Your task to perform on an android device: turn on showing notifications on the lock screen Image 0: 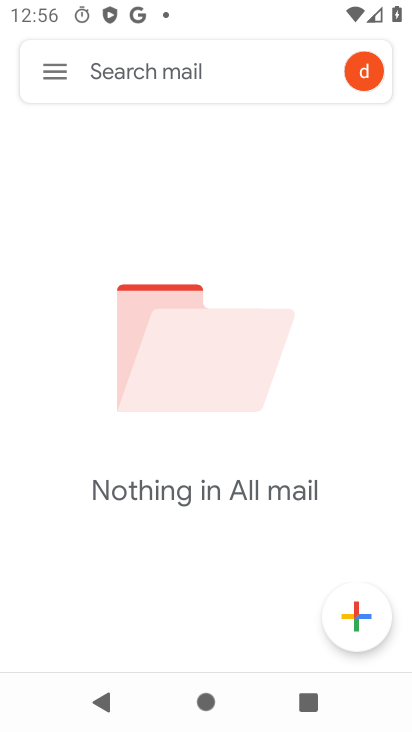
Step 0: press home button
Your task to perform on an android device: turn on showing notifications on the lock screen Image 1: 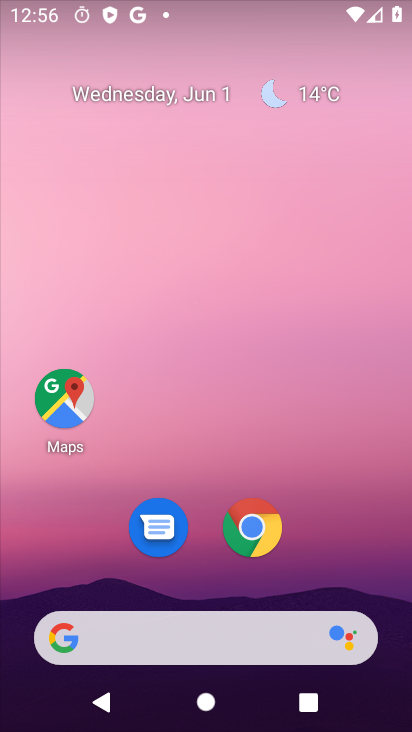
Step 1: drag from (196, 624) to (286, 207)
Your task to perform on an android device: turn on showing notifications on the lock screen Image 2: 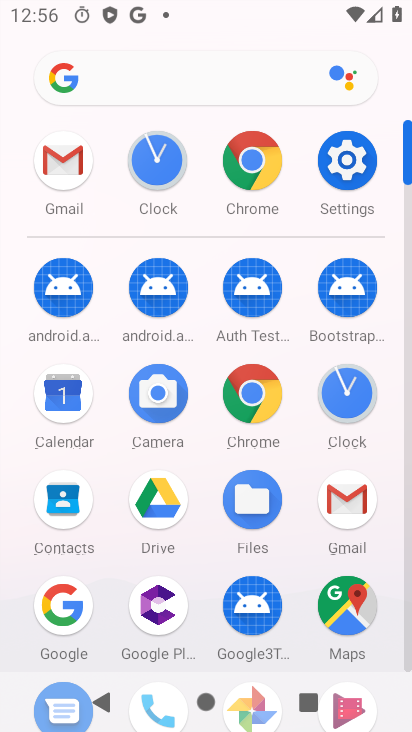
Step 2: click (359, 168)
Your task to perform on an android device: turn on showing notifications on the lock screen Image 3: 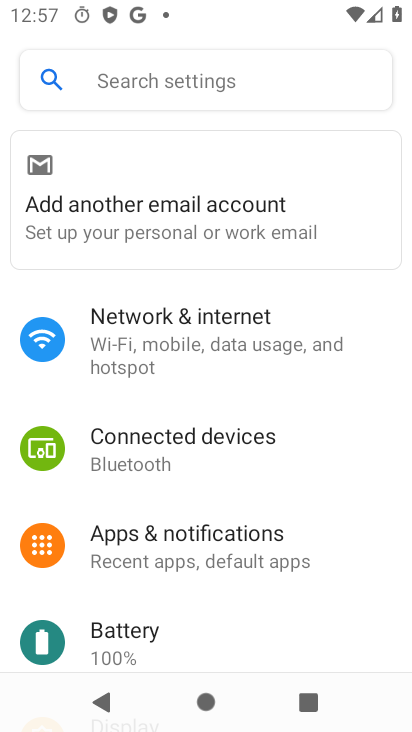
Step 3: click (214, 534)
Your task to perform on an android device: turn on showing notifications on the lock screen Image 4: 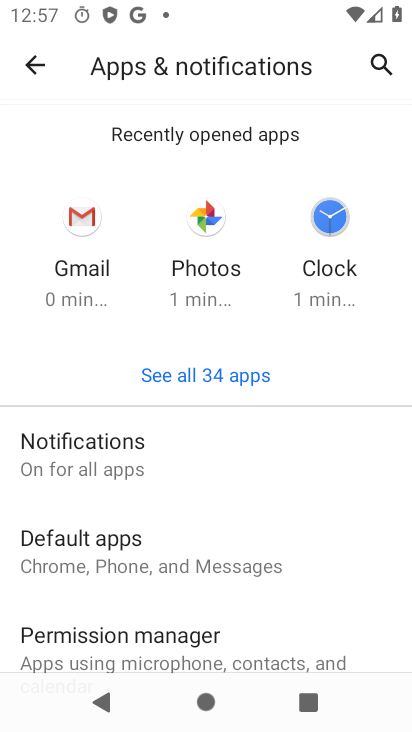
Step 4: click (192, 477)
Your task to perform on an android device: turn on showing notifications on the lock screen Image 5: 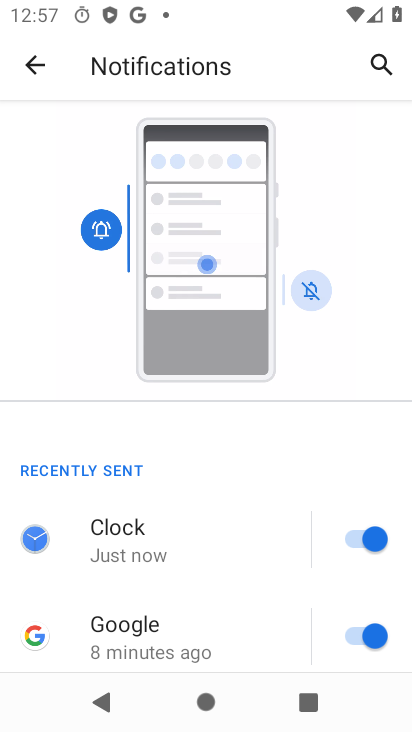
Step 5: drag from (145, 588) to (195, 330)
Your task to perform on an android device: turn on showing notifications on the lock screen Image 6: 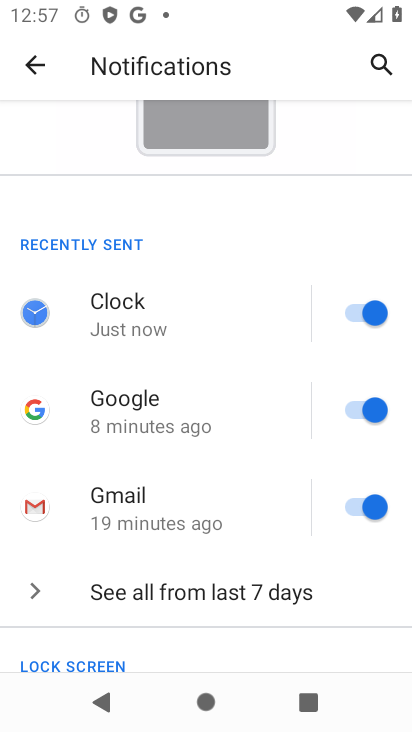
Step 6: drag from (185, 567) to (228, 280)
Your task to perform on an android device: turn on showing notifications on the lock screen Image 7: 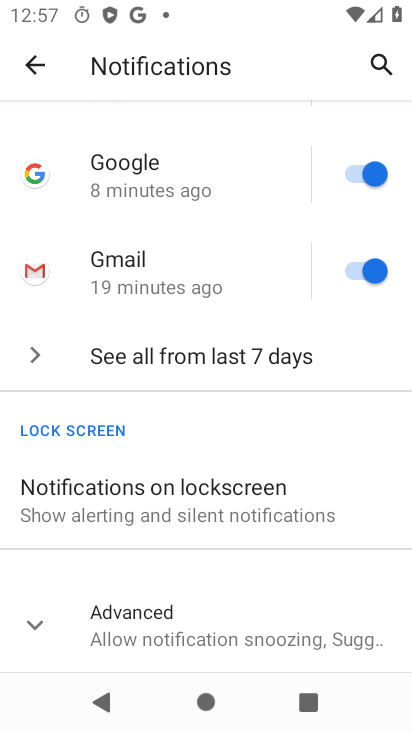
Step 7: click (223, 507)
Your task to perform on an android device: turn on showing notifications on the lock screen Image 8: 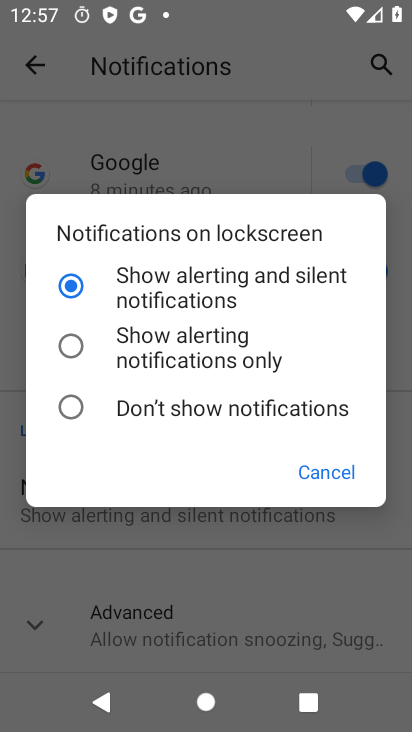
Step 8: task complete